Your task to perform on an android device: Turn off the flashlight Image 0: 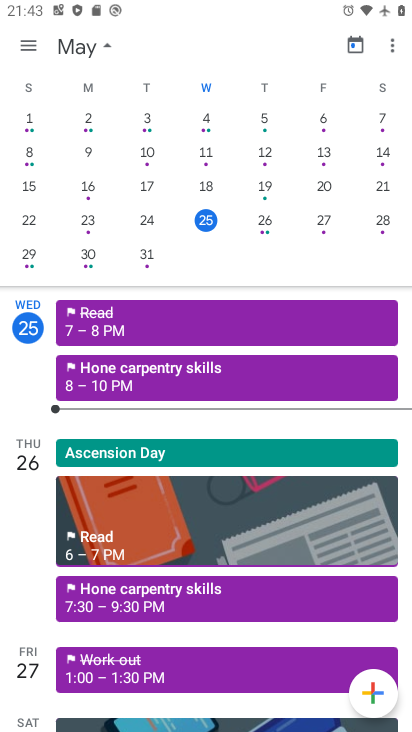
Step 0: press home button
Your task to perform on an android device: Turn off the flashlight Image 1: 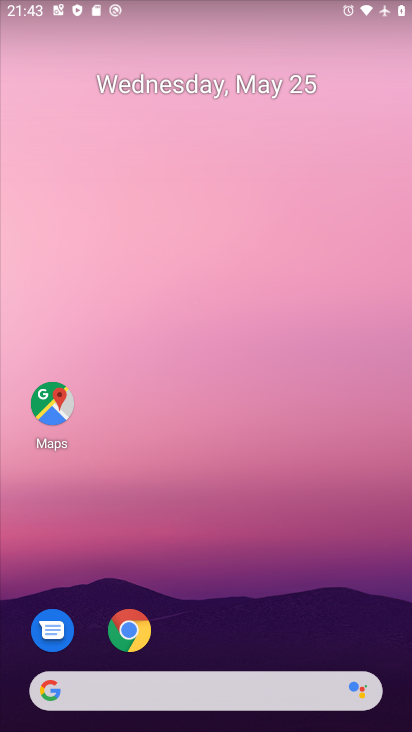
Step 1: drag from (189, 637) to (196, 232)
Your task to perform on an android device: Turn off the flashlight Image 2: 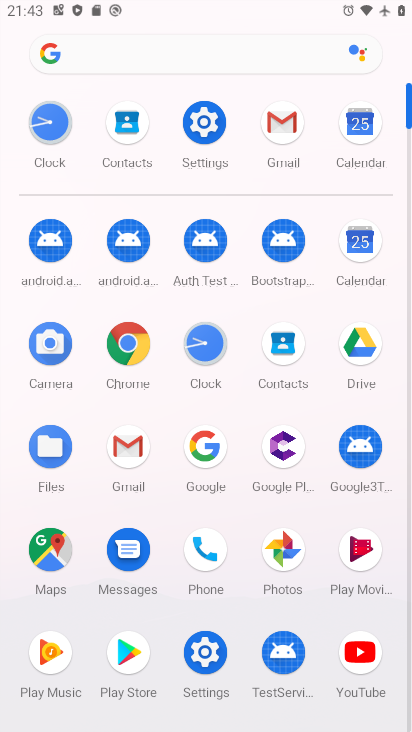
Step 2: click (216, 125)
Your task to perform on an android device: Turn off the flashlight Image 3: 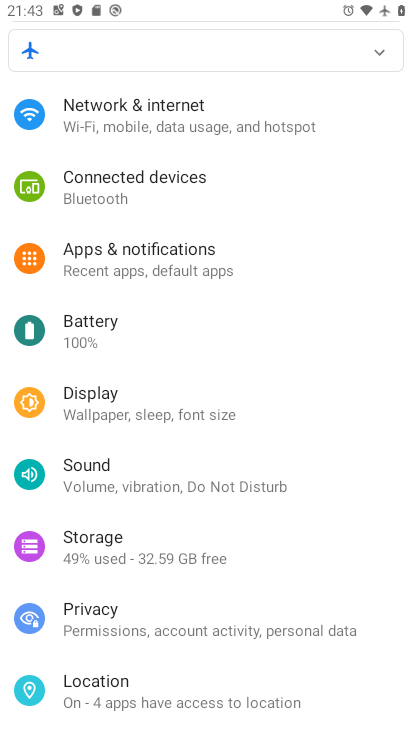
Step 3: task complete